Your task to perform on an android device: Open Android settings Image 0: 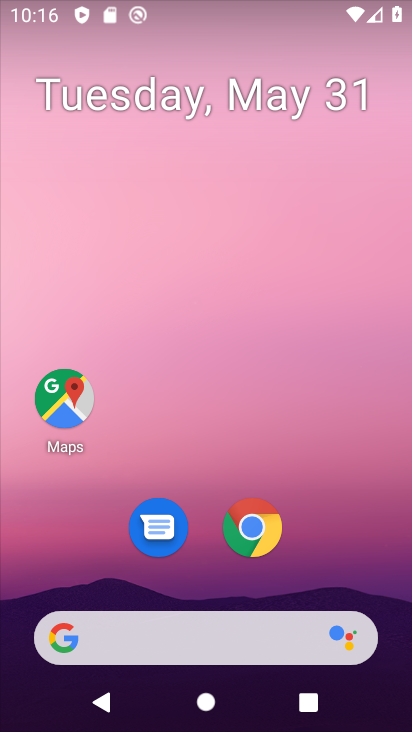
Step 0: drag from (399, 610) to (270, 123)
Your task to perform on an android device: Open Android settings Image 1: 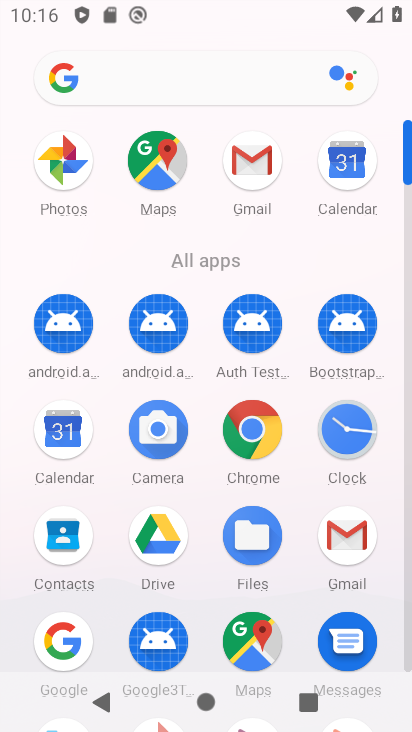
Step 1: click (410, 662)
Your task to perform on an android device: Open Android settings Image 2: 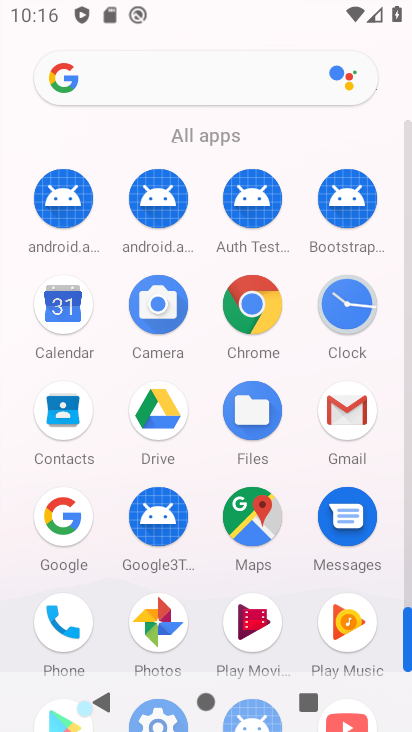
Step 2: drag from (397, 597) to (383, 392)
Your task to perform on an android device: Open Android settings Image 3: 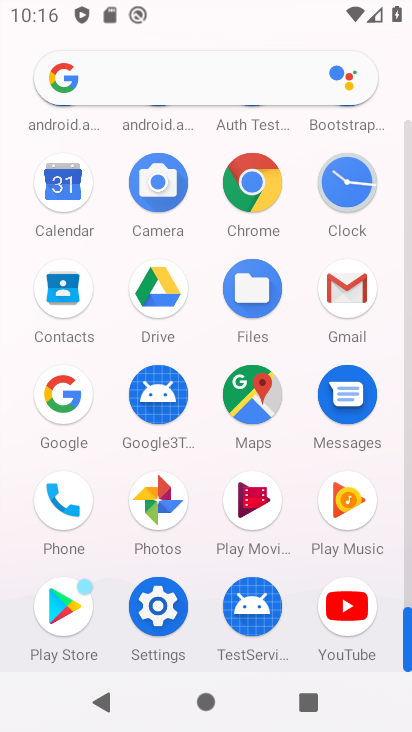
Step 3: click (160, 607)
Your task to perform on an android device: Open Android settings Image 4: 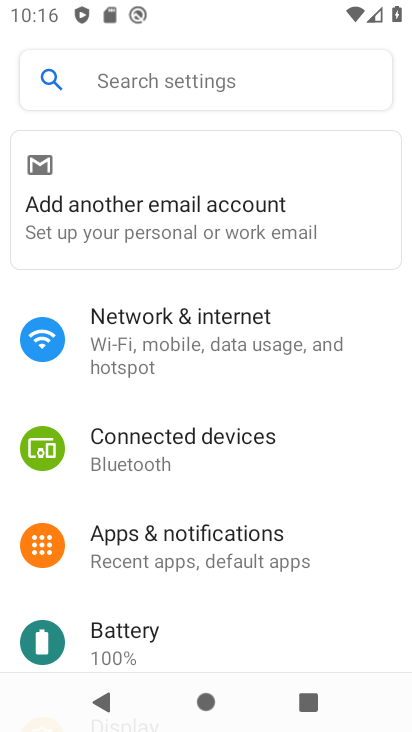
Step 4: task complete